Your task to perform on an android device: Go to sound settings Image 0: 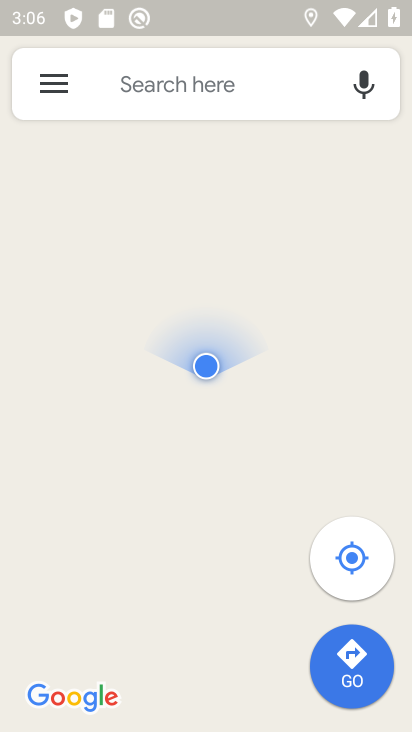
Step 0: press home button
Your task to perform on an android device: Go to sound settings Image 1: 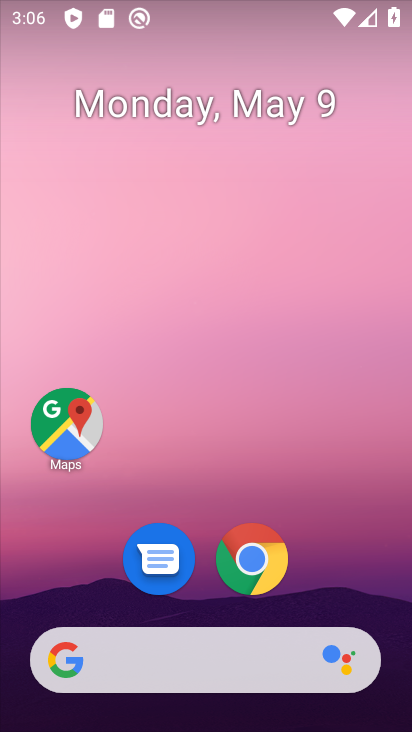
Step 1: drag from (217, 723) to (219, 127)
Your task to perform on an android device: Go to sound settings Image 2: 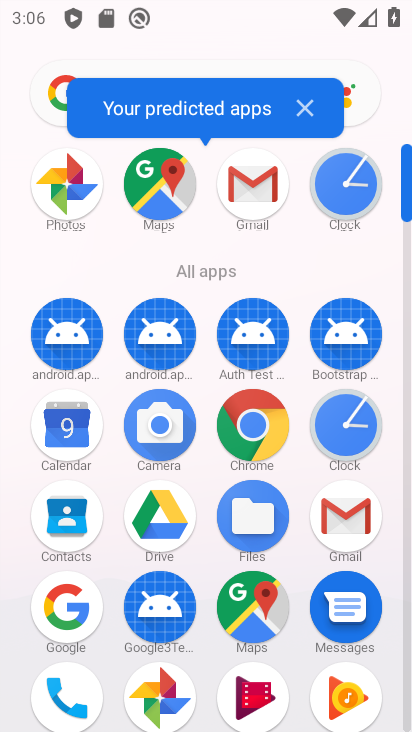
Step 2: drag from (205, 609) to (191, 177)
Your task to perform on an android device: Go to sound settings Image 3: 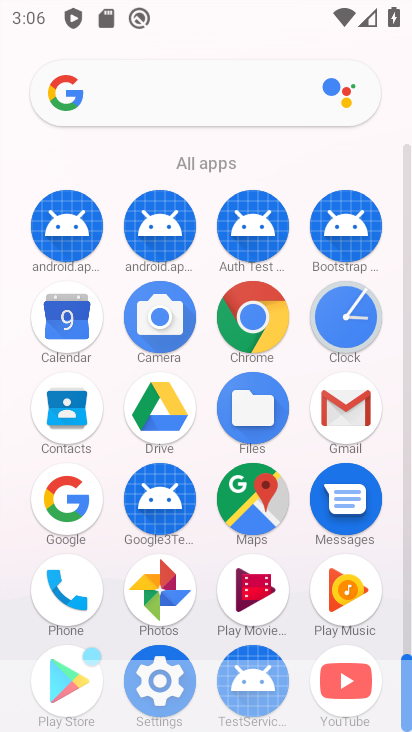
Step 3: drag from (197, 639) to (196, 320)
Your task to perform on an android device: Go to sound settings Image 4: 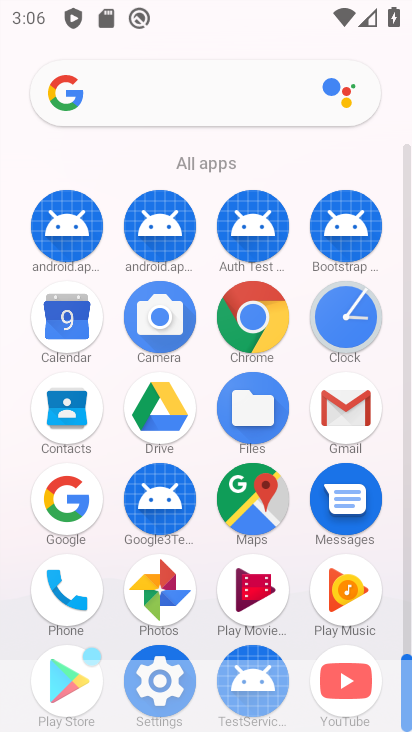
Step 4: click (162, 655)
Your task to perform on an android device: Go to sound settings Image 5: 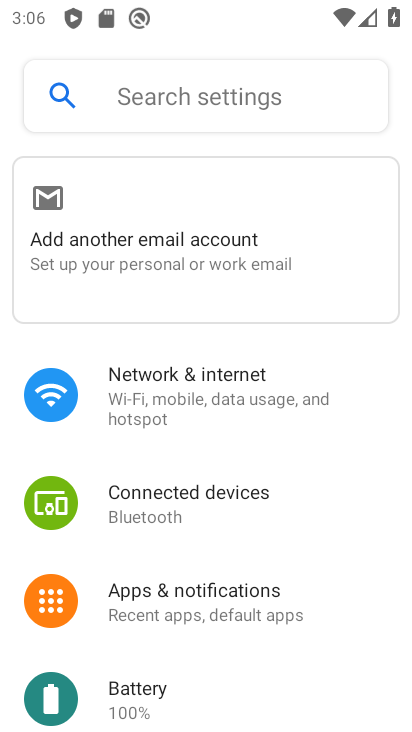
Step 5: drag from (181, 678) to (183, 243)
Your task to perform on an android device: Go to sound settings Image 6: 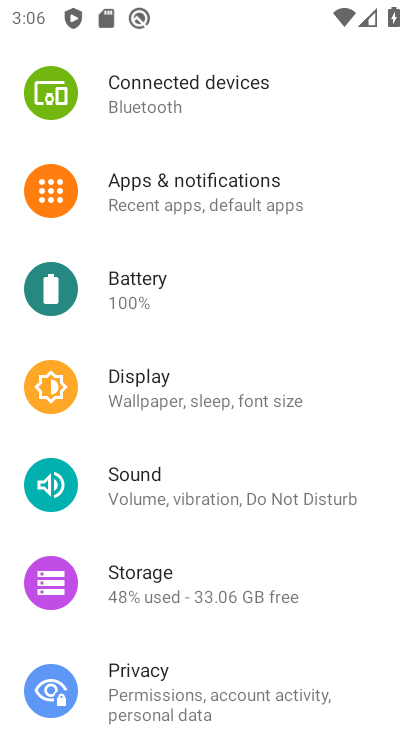
Step 6: click (157, 490)
Your task to perform on an android device: Go to sound settings Image 7: 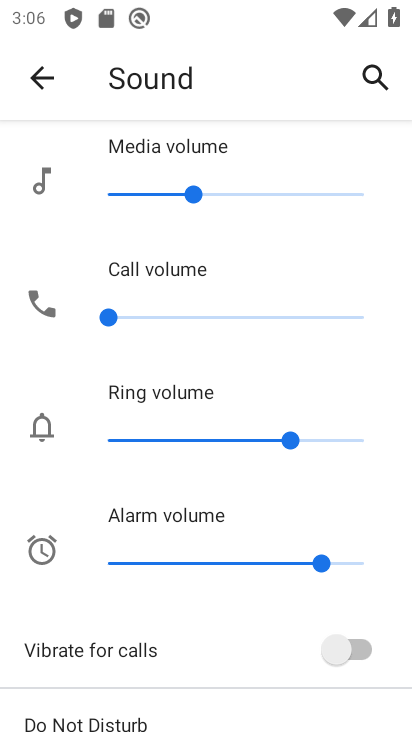
Step 7: task complete